Your task to perform on an android device: Search for "usb-a to usb-b" on amazon.com, select the first entry, add it to the cart, then select checkout. Image 0: 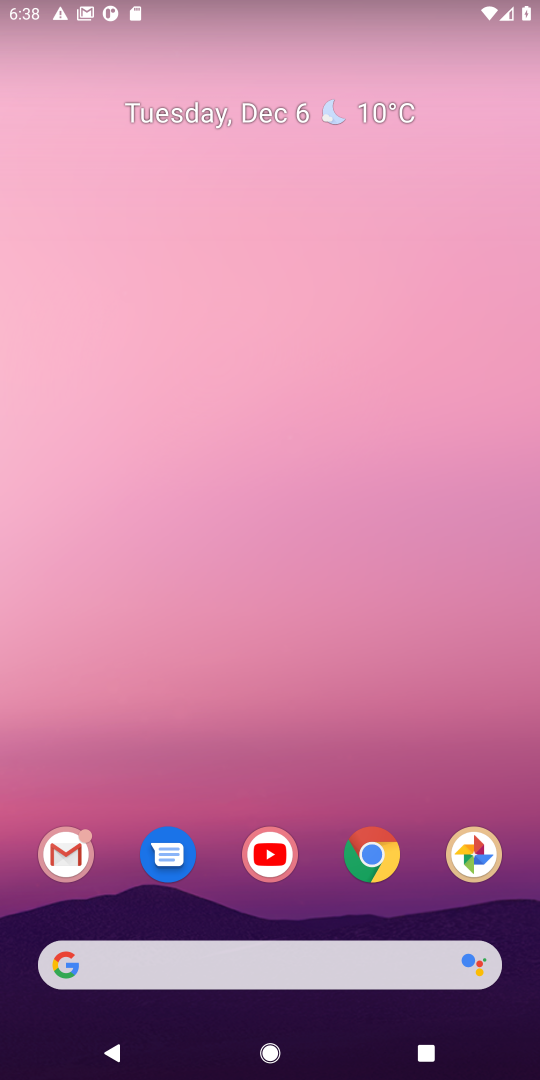
Step 0: click (378, 837)
Your task to perform on an android device: Search for "usb-a to usb-b" on amazon.com, select the first entry, add it to the cart, then select checkout. Image 1: 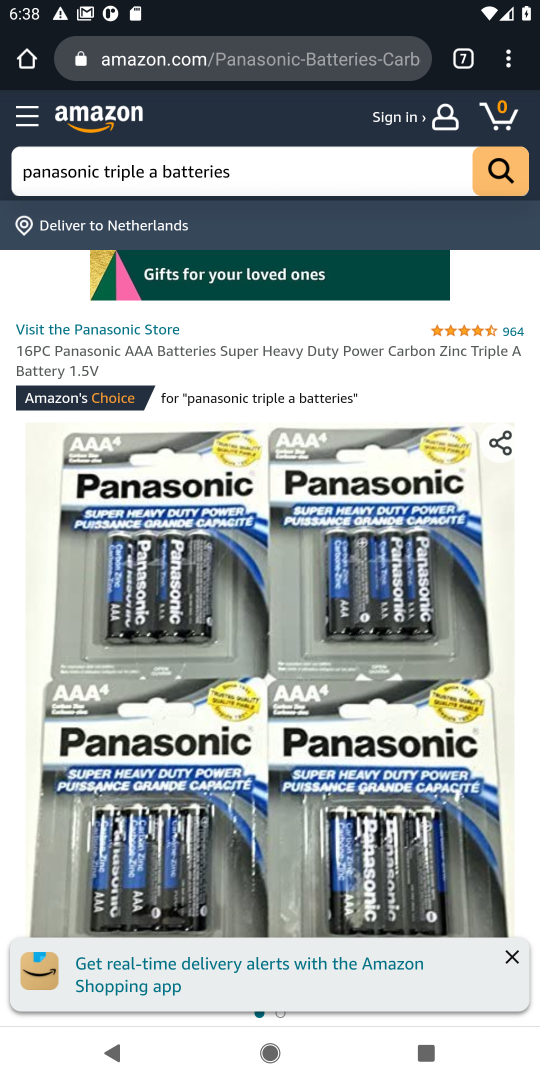
Step 1: click (221, 175)
Your task to perform on an android device: Search for "usb-a to usb-b" on amazon.com, select the first entry, add it to the cart, then select checkout. Image 2: 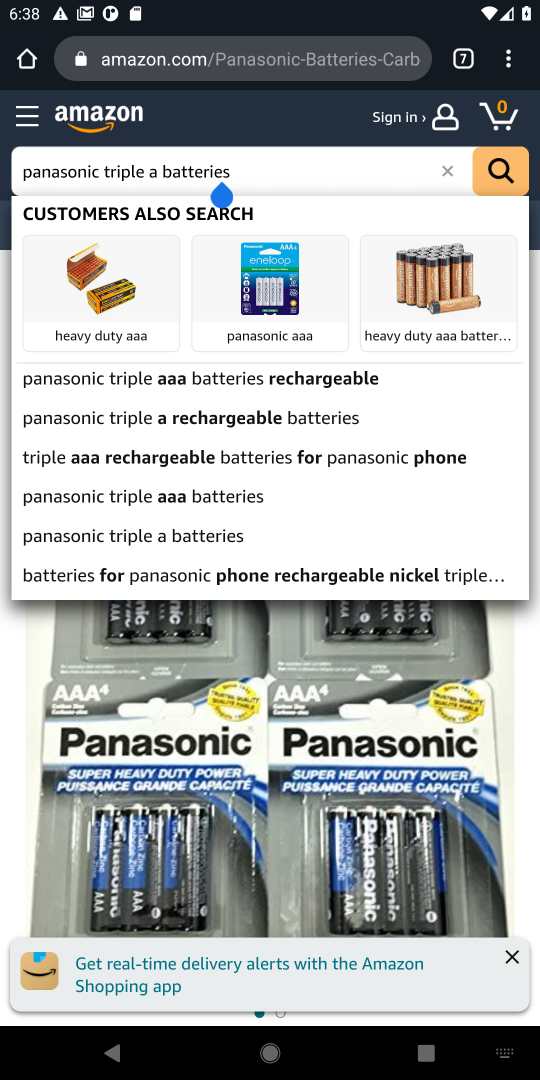
Step 2: click (445, 169)
Your task to perform on an android device: Search for "usb-a to usb-b" on amazon.com, select the first entry, add it to the cart, then select checkout. Image 3: 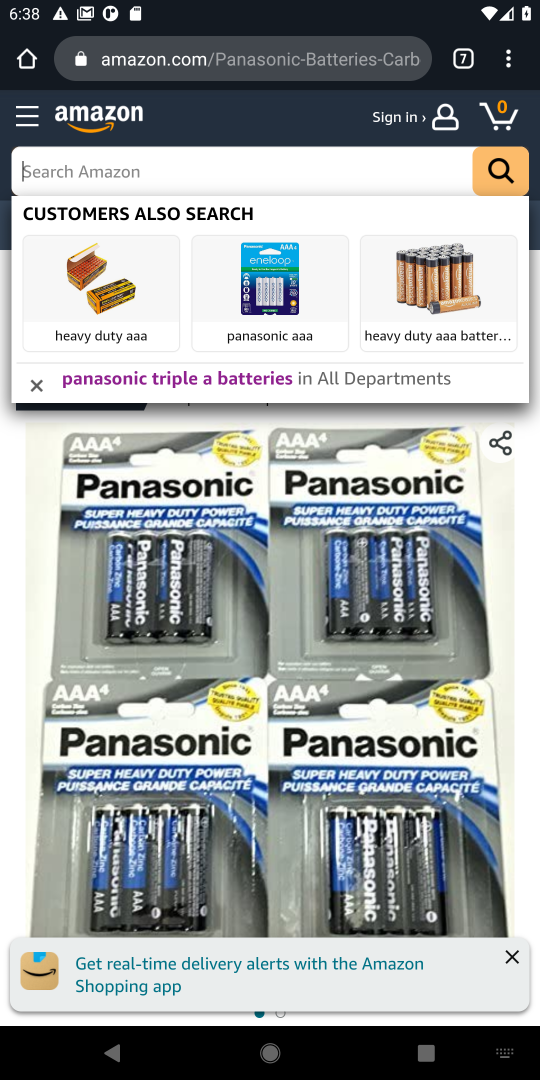
Step 3: type "usb-a to usb-b"
Your task to perform on an android device: Search for "usb-a to usb-b" on amazon.com, select the first entry, add it to the cart, then select checkout. Image 4: 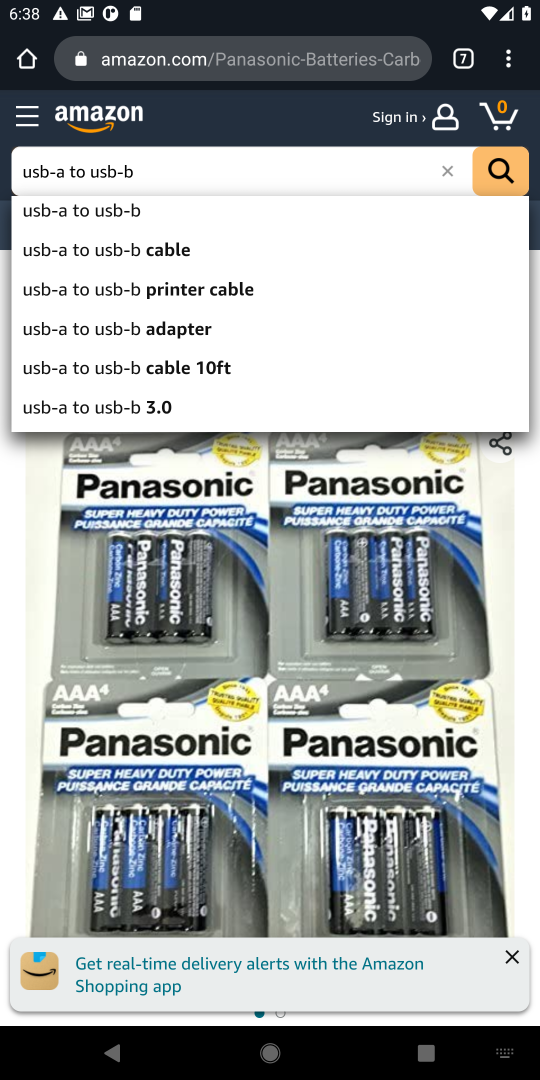
Step 4: click (107, 209)
Your task to perform on an android device: Search for "usb-a to usb-b" on amazon.com, select the first entry, add it to the cart, then select checkout. Image 5: 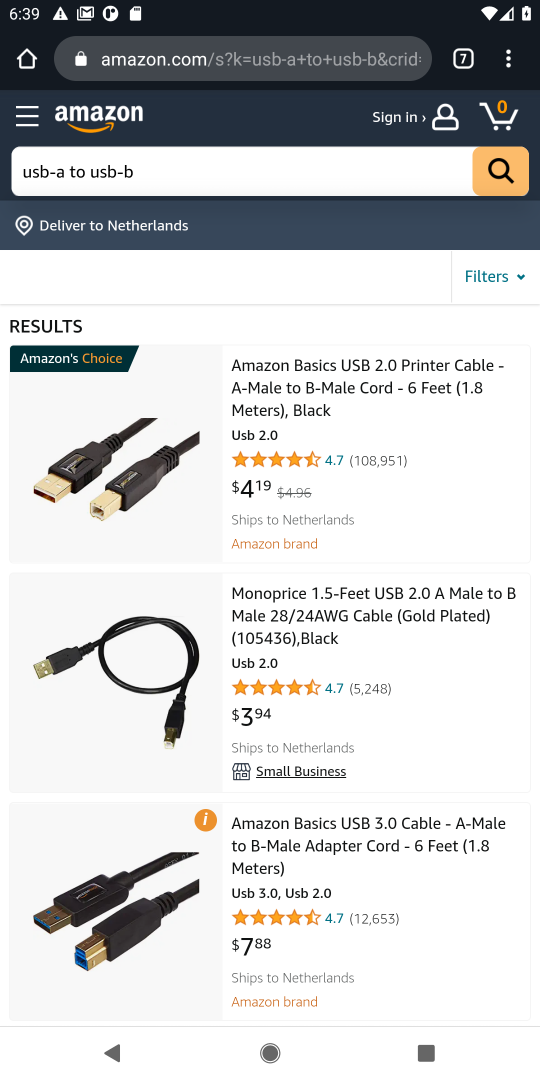
Step 5: click (340, 373)
Your task to perform on an android device: Search for "usb-a to usb-b" on amazon.com, select the first entry, add it to the cart, then select checkout. Image 6: 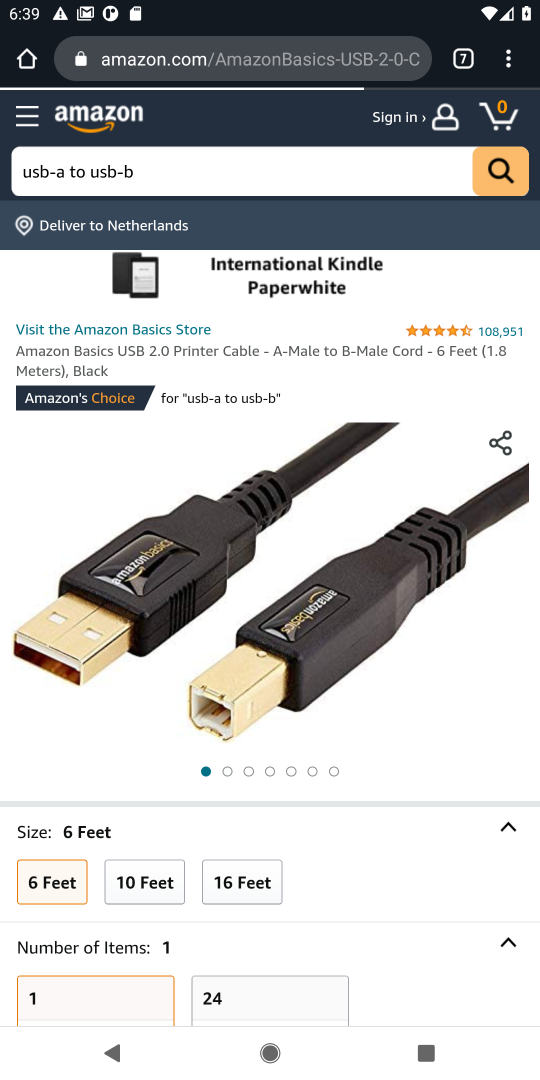
Step 6: task complete